Your task to perform on an android device: What's on my calendar today? Image 0: 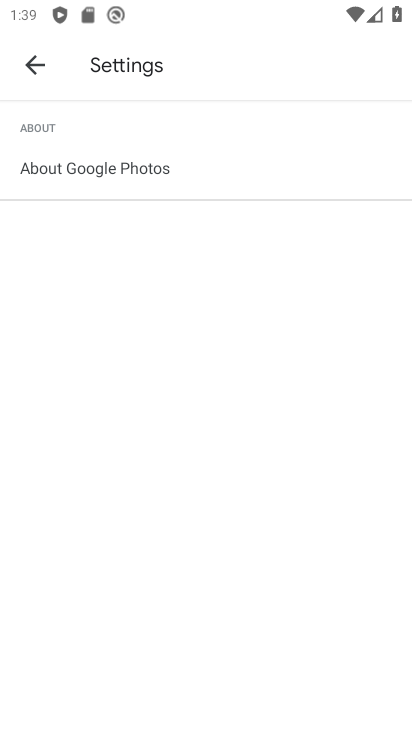
Step 0: press home button
Your task to perform on an android device: What's on my calendar today? Image 1: 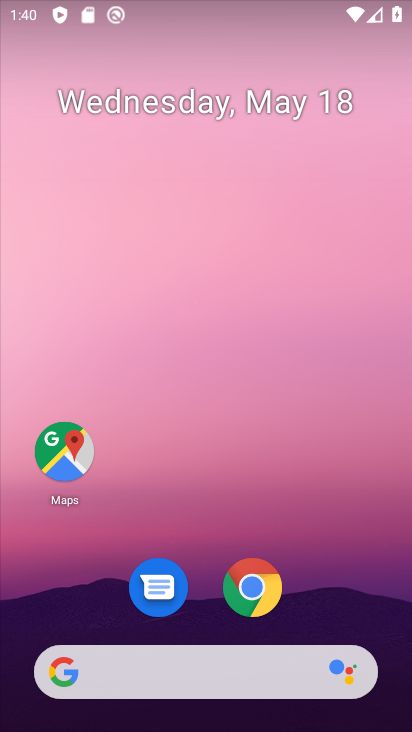
Step 1: drag from (315, 600) to (365, 3)
Your task to perform on an android device: What's on my calendar today? Image 2: 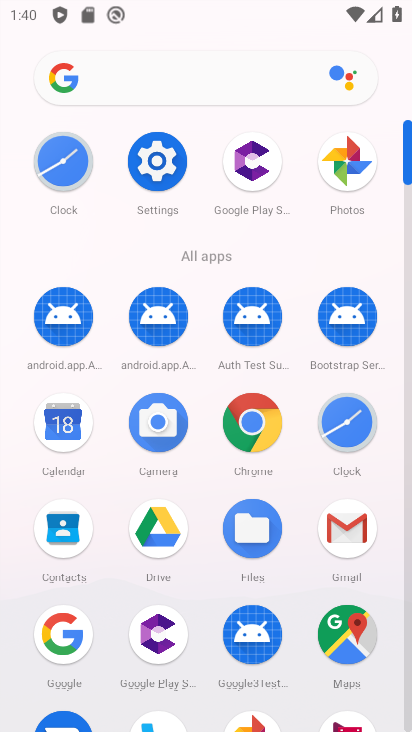
Step 2: click (57, 428)
Your task to perform on an android device: What's on my calendar today? Image 3: 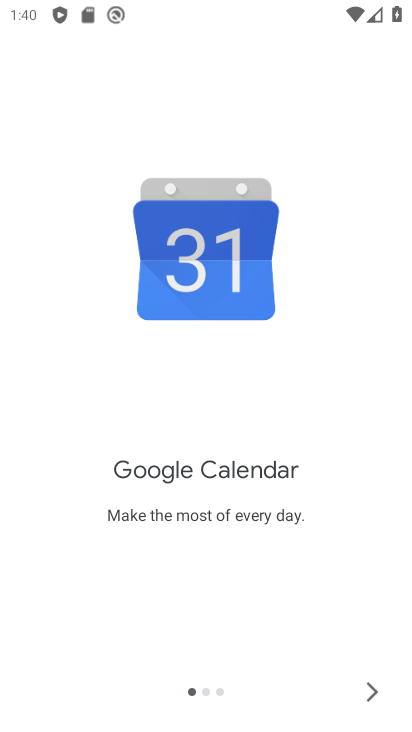
Step 3: click (378, 698)
Your task to perform on an android device: What's on my calendar today? Image 4: 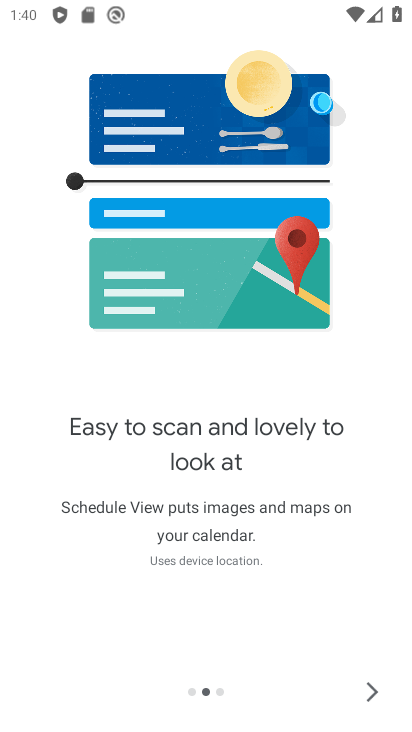
Step 4: click (378, 698)
Your task to perform on an android device: What's on my calendar today? Image 5: 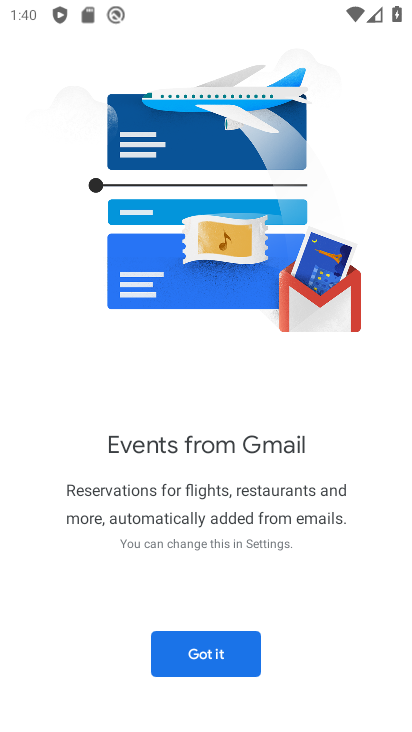
Step 5: click (229, 652)
Your task to perform on an android device: What's on my calendar today? Image 6: 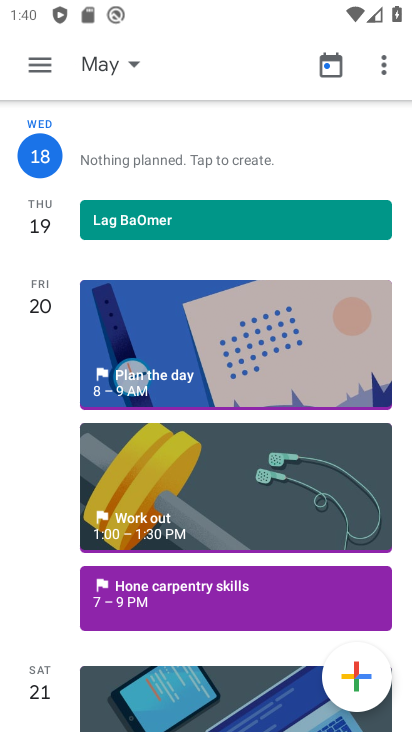
Step 6: click (126, 159)
Your task to perform on an android device: What's on my calendar today? Image 7: 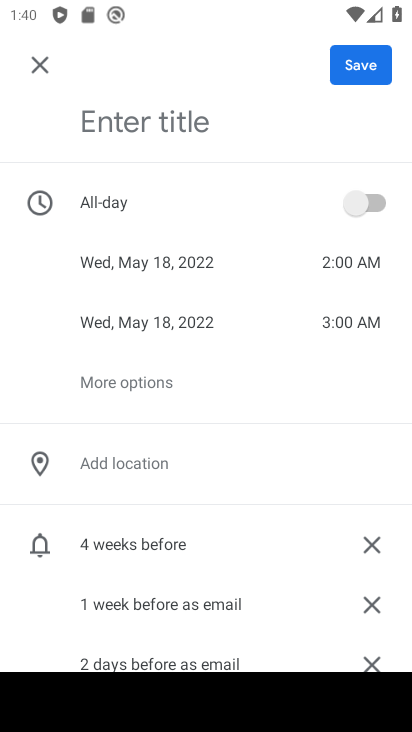
Step 7: task complete